Your task to perform on an android device: toggle wifi Image 0: 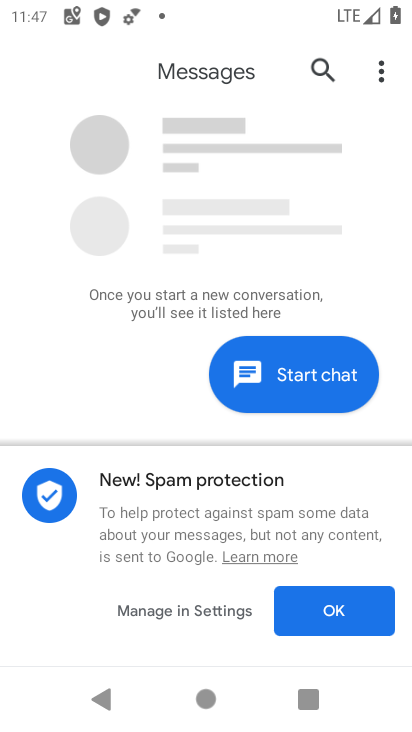
Step 0: drag from (221, 1) to (137, 727)
Your task to perform on an android device: toggle wifi Image 1: 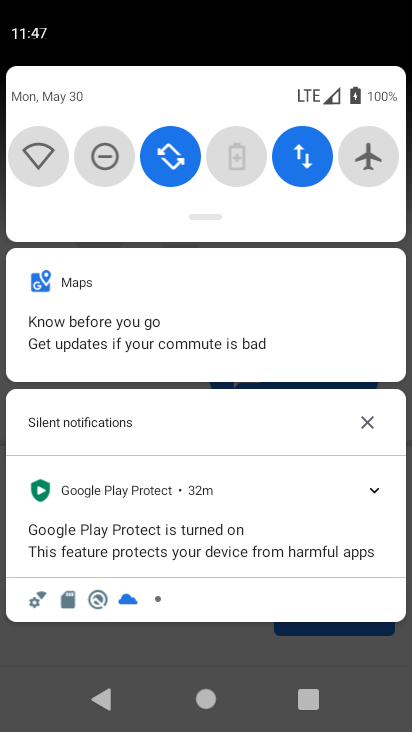
Step 1: click (34, 158)
Your task to perform on an android device: toggle wifi Image 2: 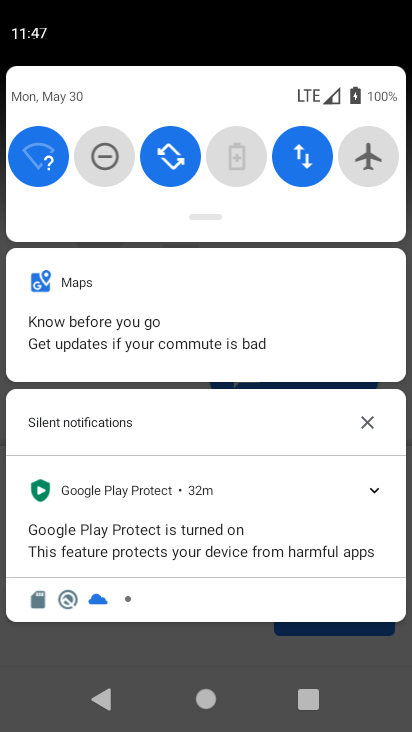
Step 2: task complete